Your task to perform on an android device: open the mobile data screen to see how much data has been used Image 0: 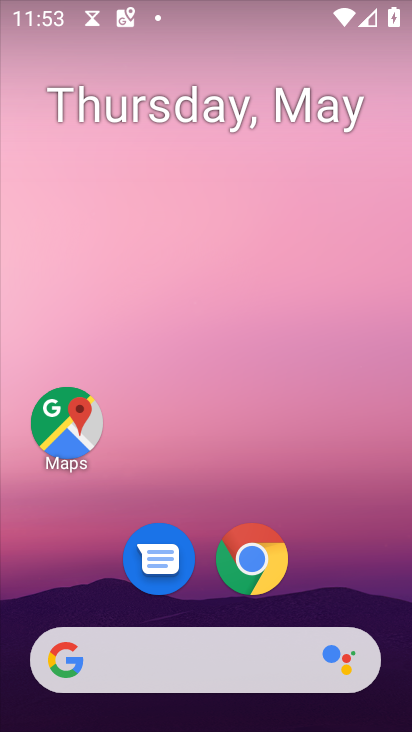
Step 0: drag from (219, 722) to (217, 228)
Your task to perform on an android device: open the mobile data screen to see how much data has been used Image 1: 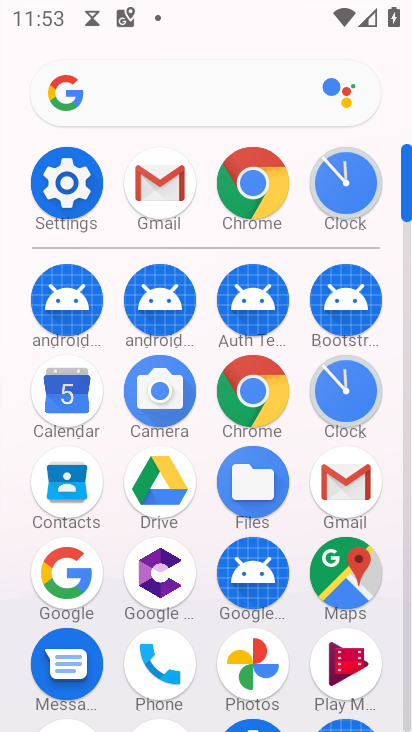
Step 1: click (63, 177)
Your task to perform on an android device: open the mobile data screen to see how much data has been used Image 2: 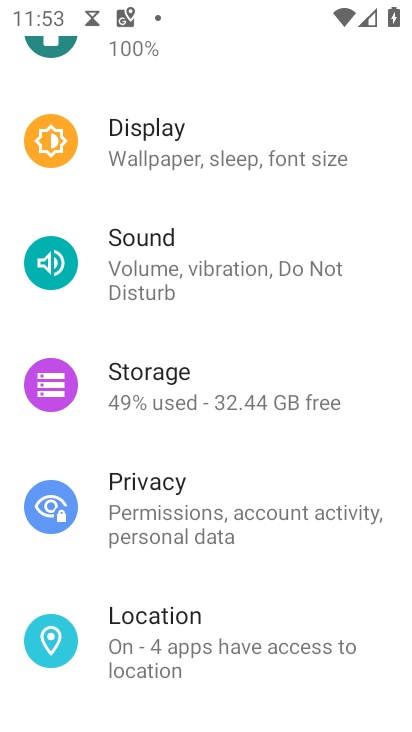
Step 2: drag from (252, 156) to (238, 475)
Your task to perform on an android device: open the mobile data screen to see how much data has been used Image 3: 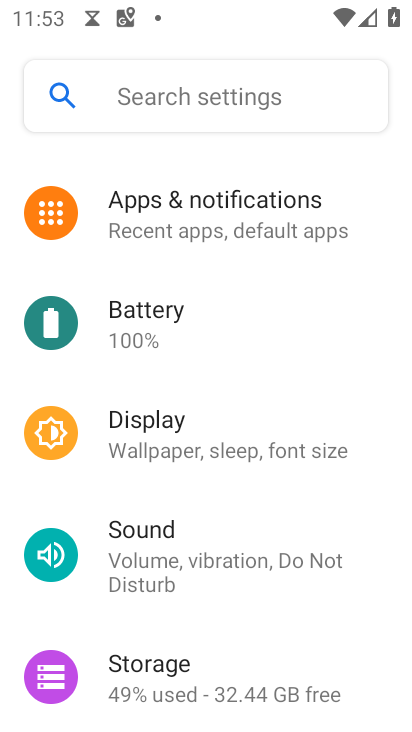
Step 3: drag from (222, 176) to (245, 591)
Your task to perform on an android device: open the mobile data screen to see how much data has been used Image 4: 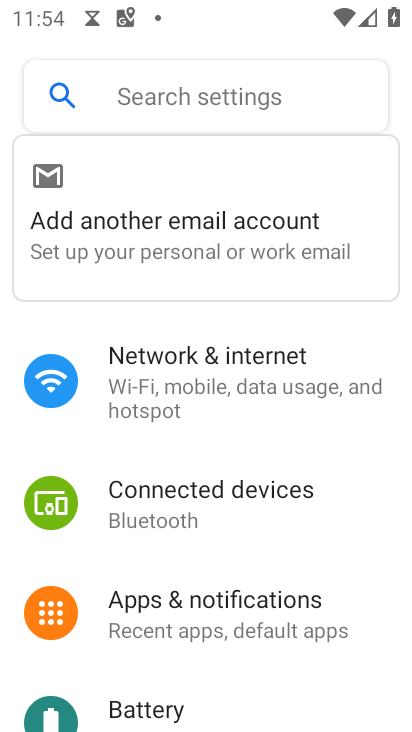
Step 4: click (173, 388)
Your task to perform on an android device: open the mobile data screen to see how much data has been used Image 5: 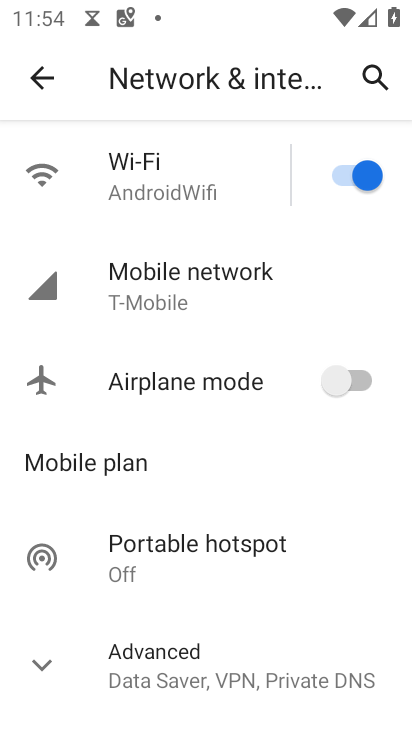
Step 5: click (154, 281)
Your task to perform on an android device: open the mobile data screen to see how much data has been used Image 6: 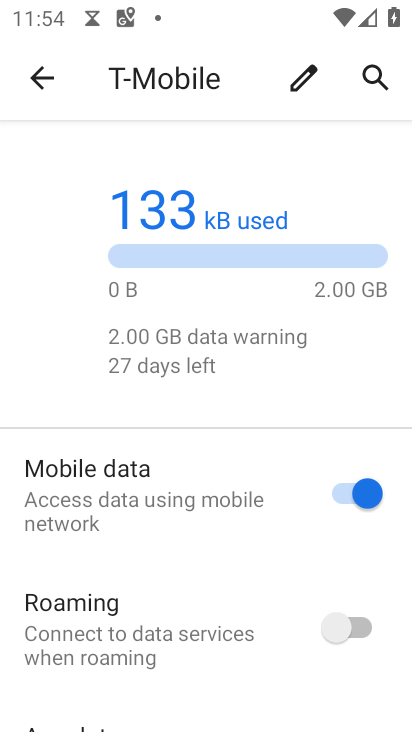
Step 6: drag from (206, 697) to (210, 292)
Your task to perform on an android device: open the mobile data screen to see how much data has been used Image 7: 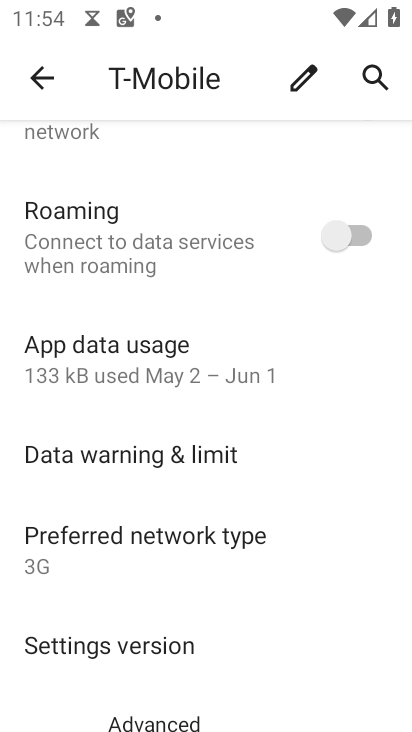
Step 7: click (121, 357)
Your task to perform on an android device: open the mobile data screen to see how much data has been used Image 8: 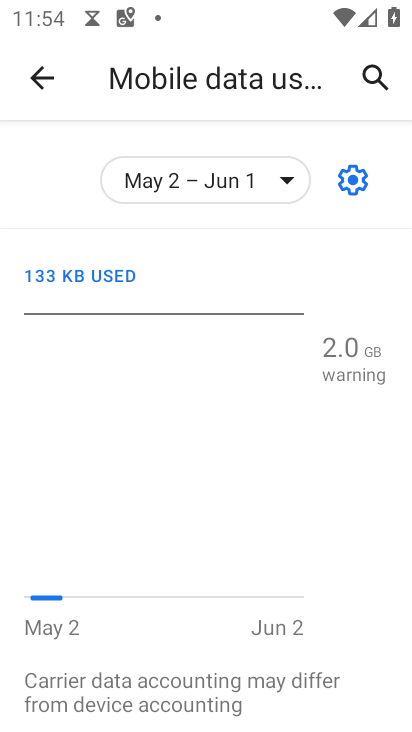
Step 8: task complete